Your task to perform on an android device: delete location history Image 0: 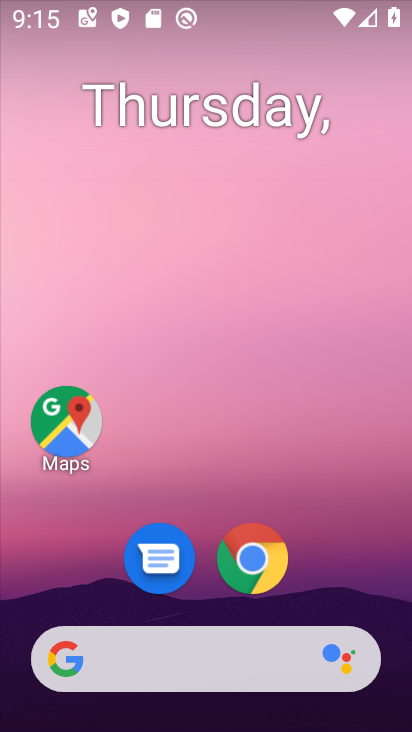
Step 0: click (63, 425)
Your task to perform on an android device: delete location history Image 1: 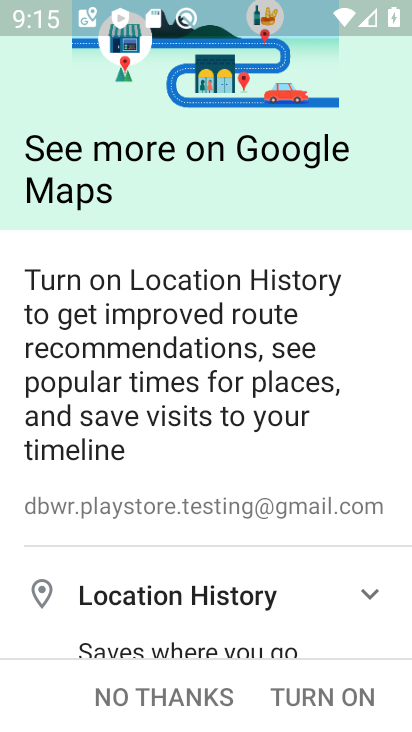
Step 1: click (177, 701)
Your task to perform on an android device: delete location history Image 2: 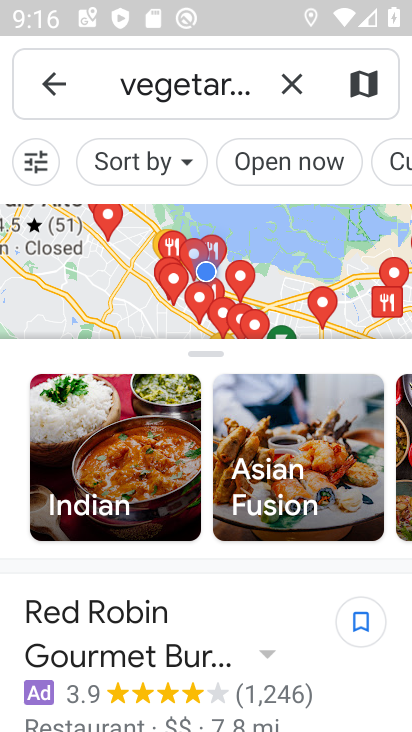
Step 2: click (292, 83)
Your task to perform on an android device: delete location history Image 3: 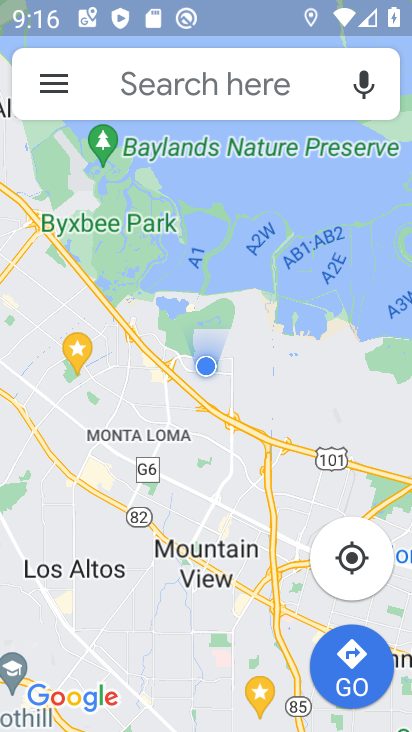
Step 3: click (45, 80)
Your task to perform on an android device: delete location history Image 4: 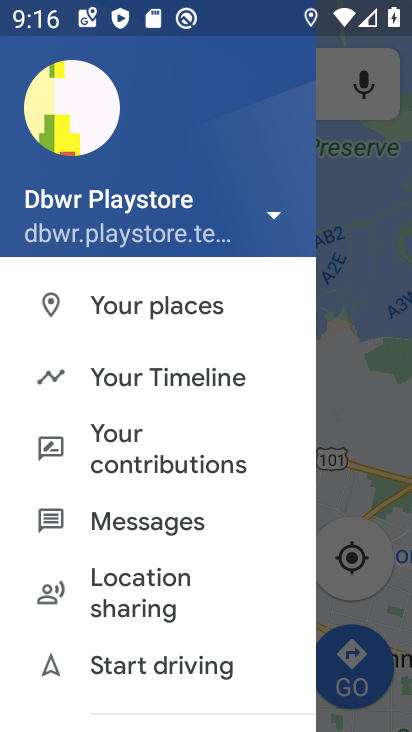
Step 4: drag from (119, 550) to (222, 300)
Your task to perform on an android device: delete location history Image 5: 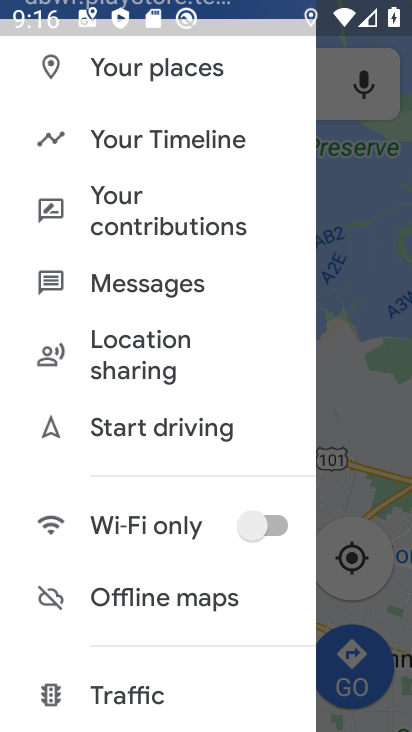
Step 5: drag from (113, 648) to (217, 440)
Your task to perform on an android device: delete location history Image 6: 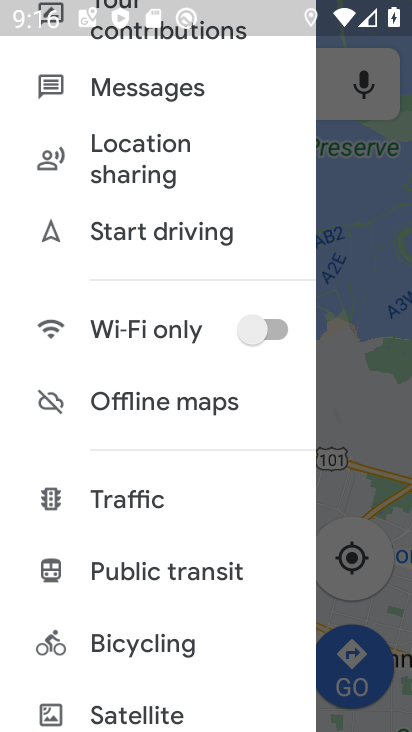
Step 6: drag from (94, 609) to (189, 406)
Your task to perform on an android device: delete location history Image 7: 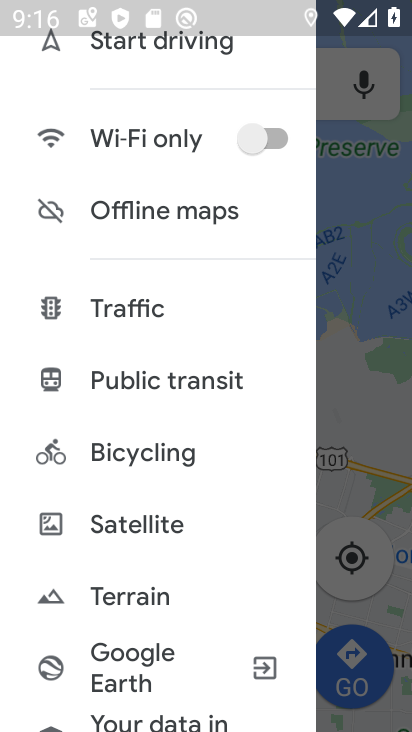
Step 7: drag from (71, 575) to (170, 395)
Your task to perform on an android device: delete location history Image 8: 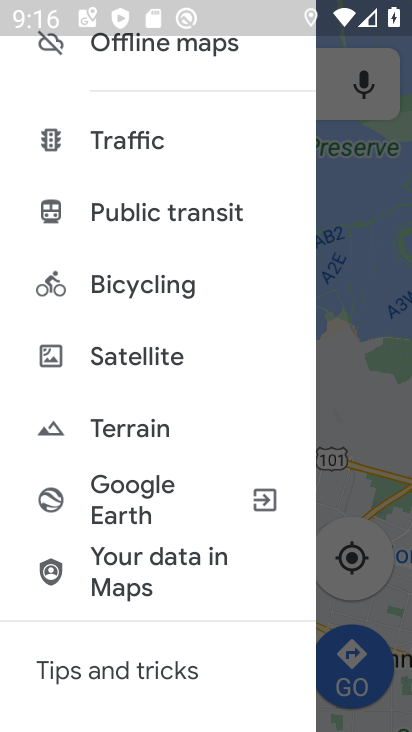
Step 8: drag from (59, 625) to (104, 443)
Your task to perform on an android device: delete location history Image 9: 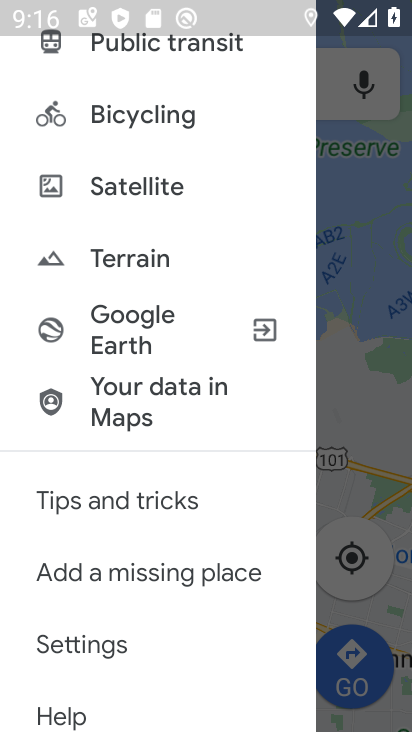
Step 9: drag from (52, 531) to (135, 379)
Your task to perform on an android device: delete location history Image 10: 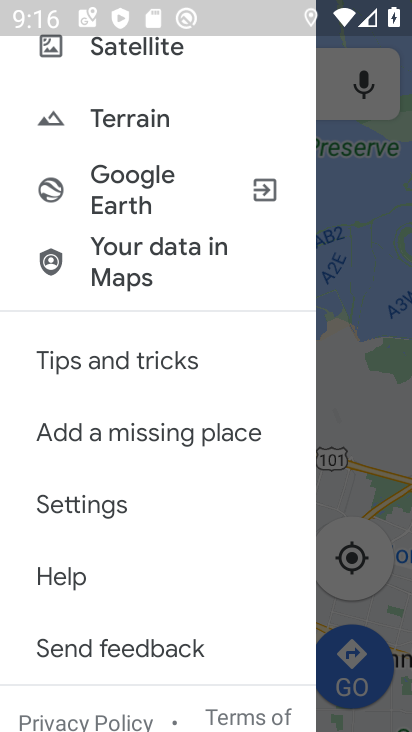
Step 10: click (100, 503)
Your task to perform on an android device: delete location history Image 11: 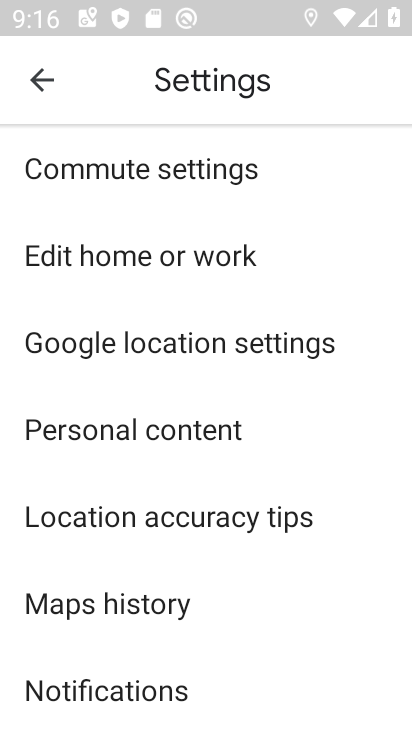
Step 11: click (149, 430)
Your task to perform on an android device: delete location history Image 12: 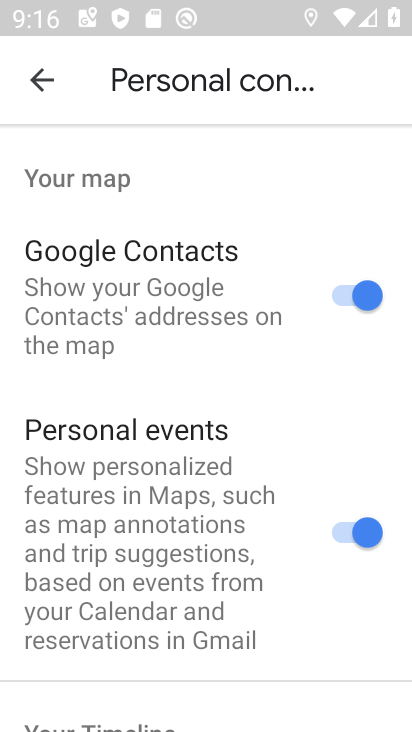
Step 12: drag from (141, 635) to (225, 411)
Your task to perform on an android device: delete location history Image 13: 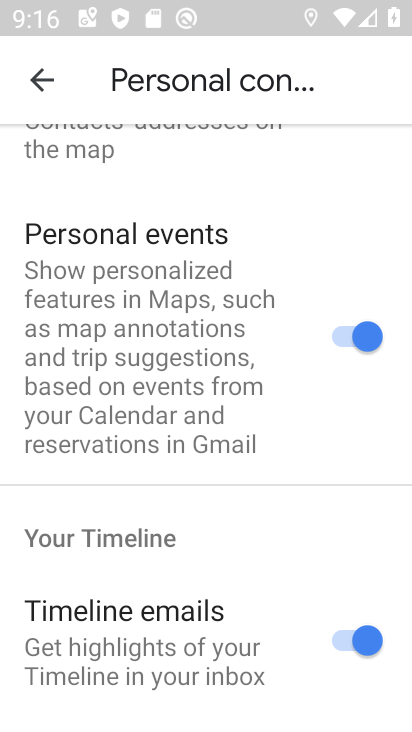
Step 13: drag from (113, 576) to (220, 443)
Your task to perform on an android device: delete location history Image 14: 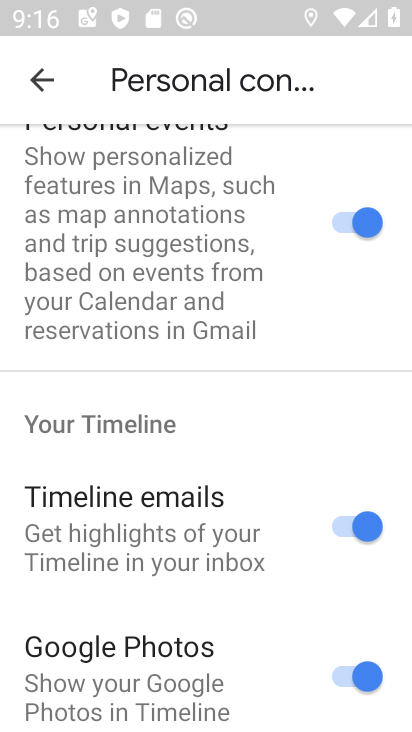
Step 14: drag from (85, 611) to (209, 433)
Your task to perform on an android device: delete location history Image 15: 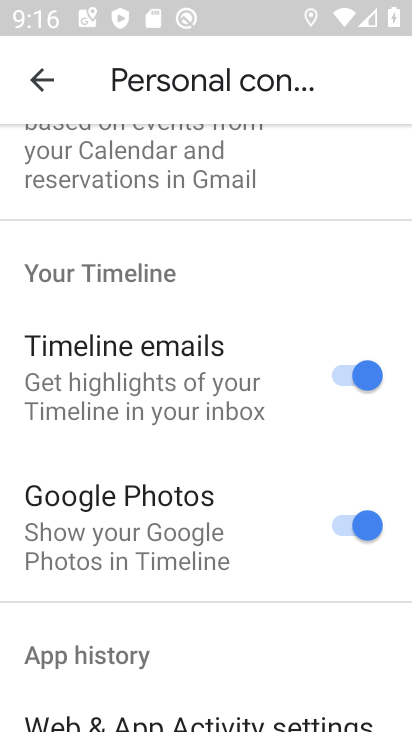
Step 15: drag from (71, 626) to (208, 440)
Your task to perform on an android device: delete location history Image 16: 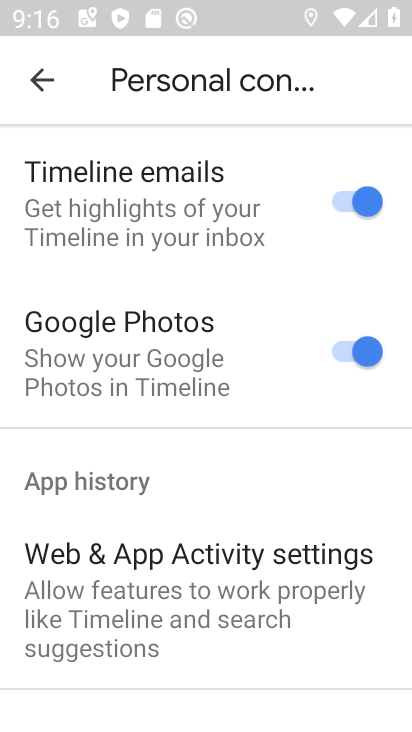
Step 16: drag from (97, 620) to (222, 472)
Your task to perform on an android device: delete location history Image 17: 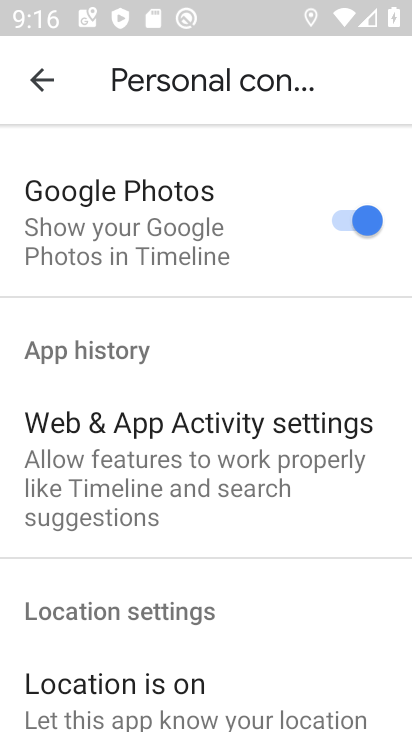
Step 17: drag from (80, 639) to (225, 478)
Your task to perform on an android device: delete location history Image 18: 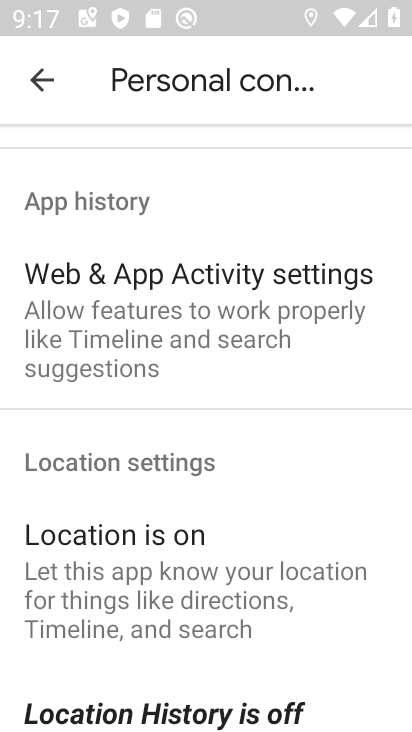
Step 18: drag from (72, 652) to (215, 472)
Your task to perform on an android device: delete location history Image 19: 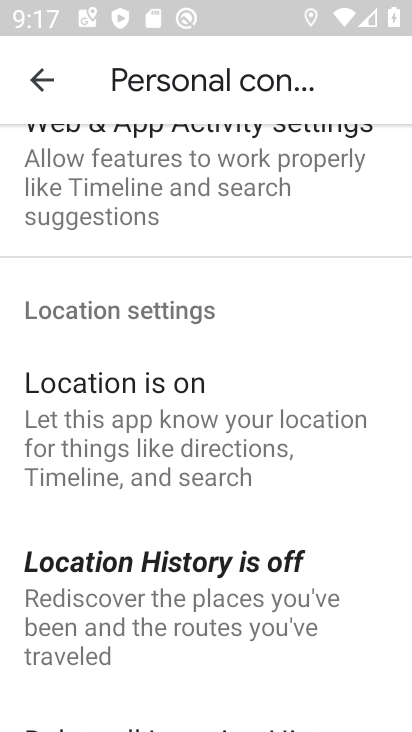
Step 19: drag from (76, 635) to (228, 467)
Your task to perform on an android device: delete location history Image 20: 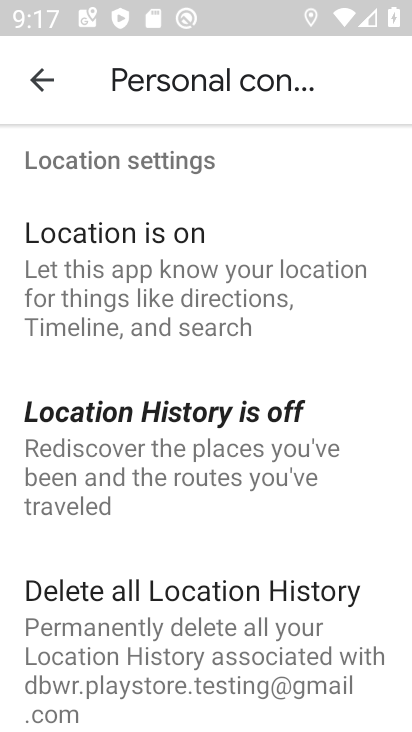
Step 20: drag from (111, 631) to (257, 467)
Your task to perform on an android device: delete location history Image 21: 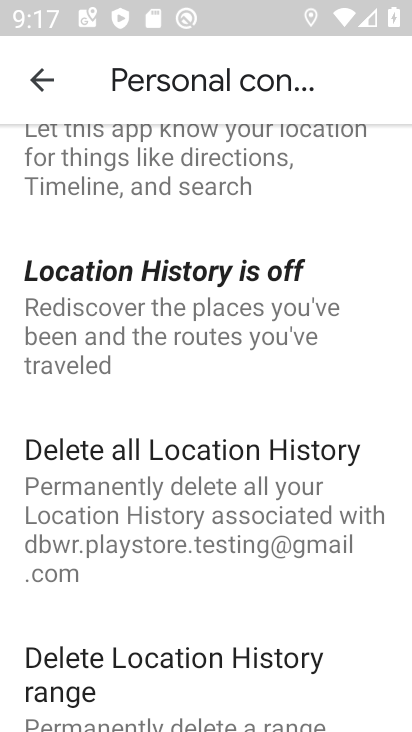
Step 21: click (230, 454)
Your task to perform on an android device: delete location history Image 22: 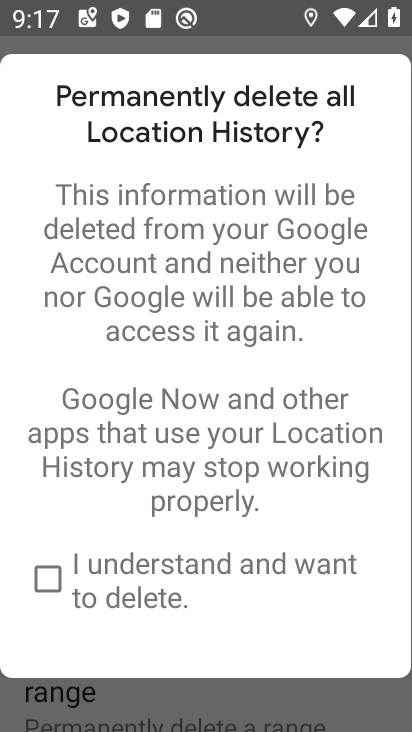
Step 22: click (45, 585)
Your task to perform on an android device: delete location history Image 23: 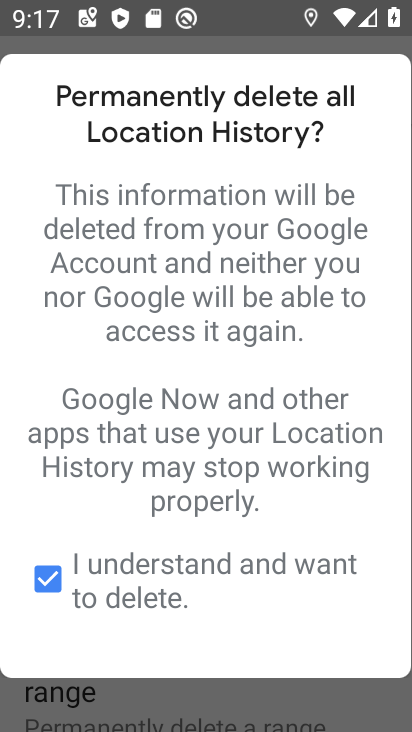
Step 23: click (291, 654)
Your task to perform on an android device: delete location history Image 24: 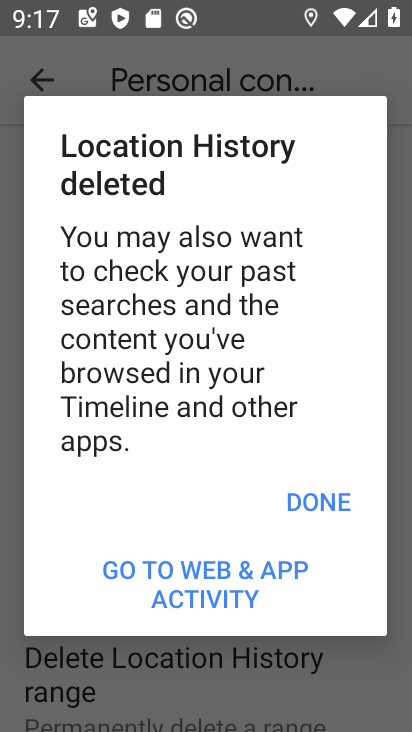
Step 24: click (315, 492)
Your task to perform on an android device: delete location history Image 25: 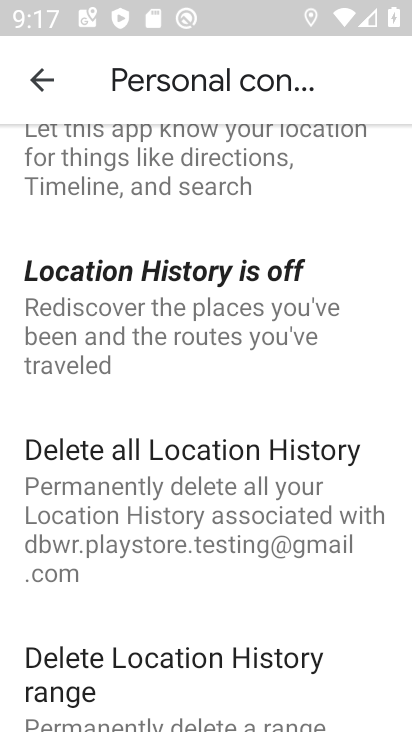
Step 25: task complete